Your task to perform on an android device: Go to Wikipedia Image 0: 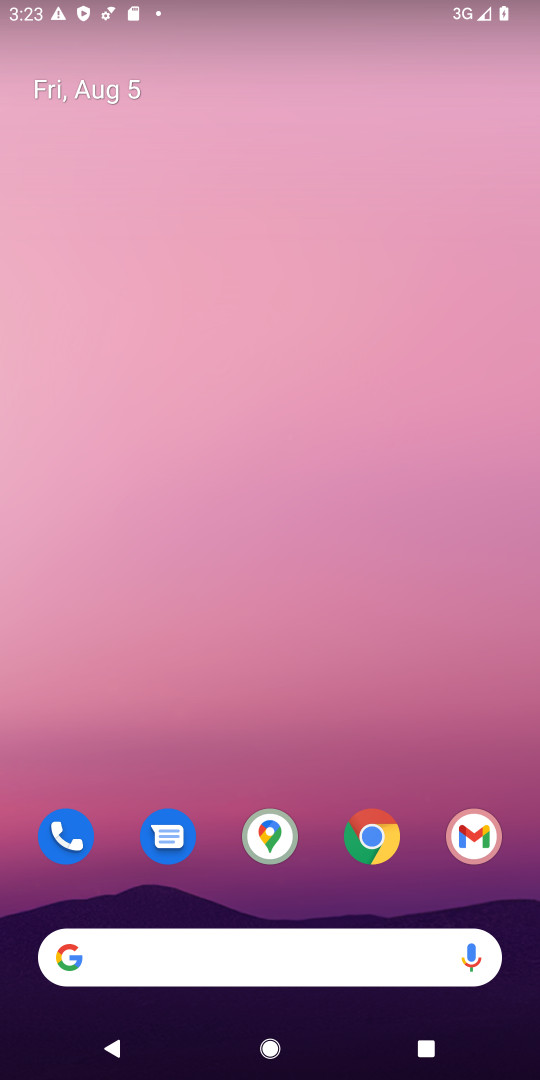
Step 0: drag from (264, 940) to (376, 0)
Your task to perform on an android device: Go to Wikipedia Image 1: 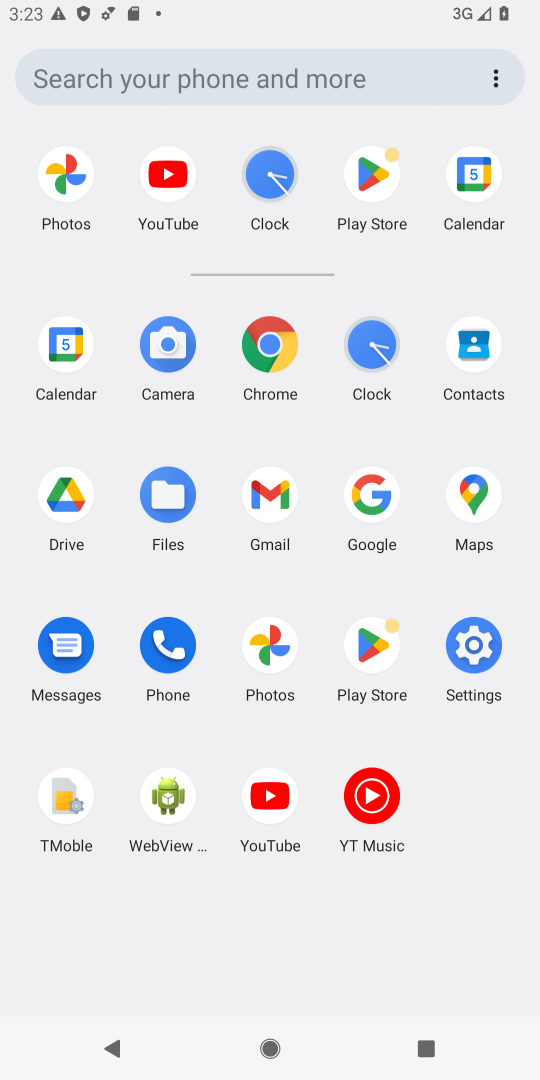
Step 1: click (246, 369)
Your task to perform on an android device: Go to Wikipedia Image 2: 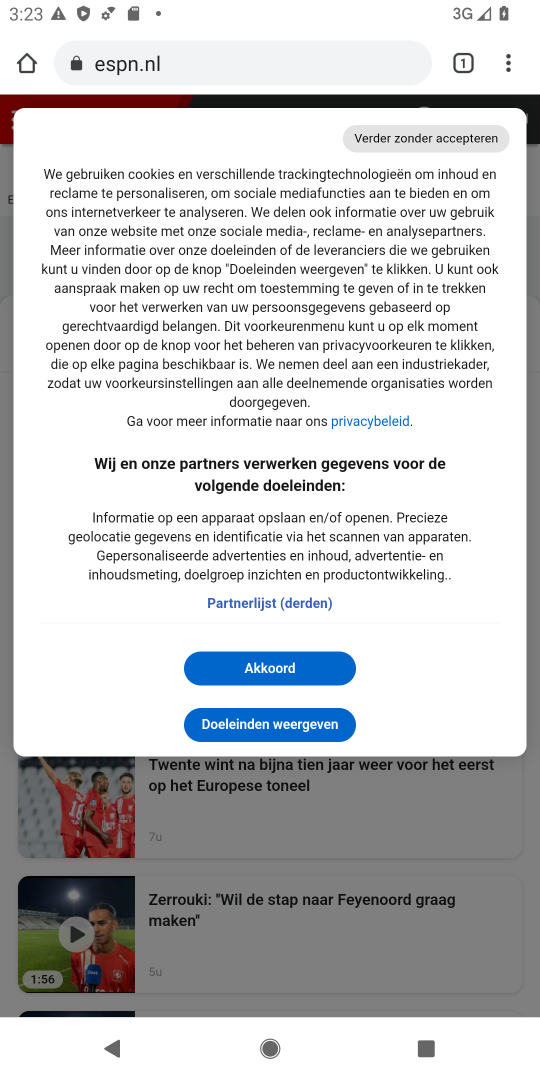
Step 2: click (224, 61)
Your task to perform on an android device: Go to Wikipedia Image 3: 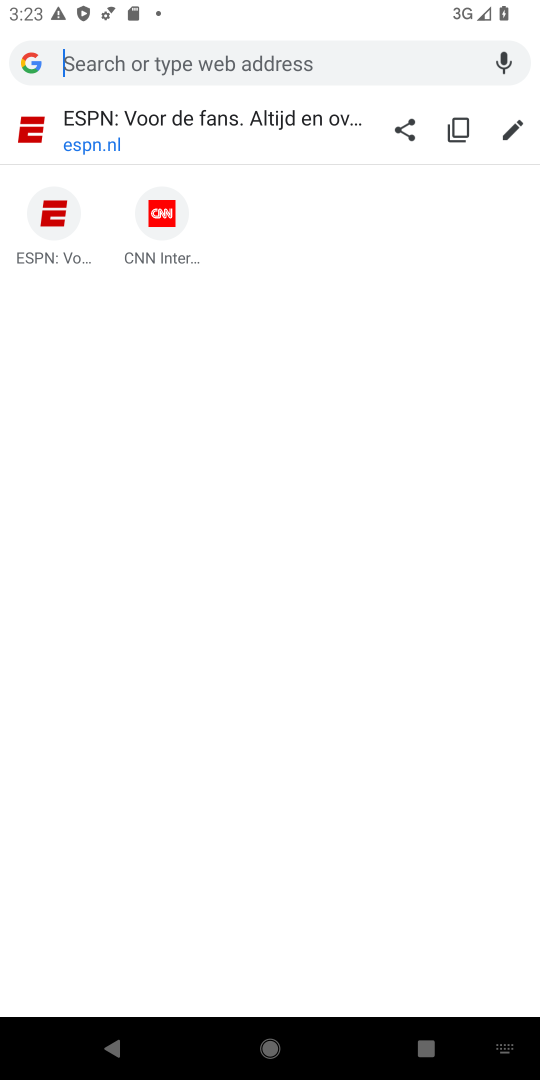
Step 3: type "Wikipedia"
Your task to perform on an android device: Go to Wikipedia Image 4: 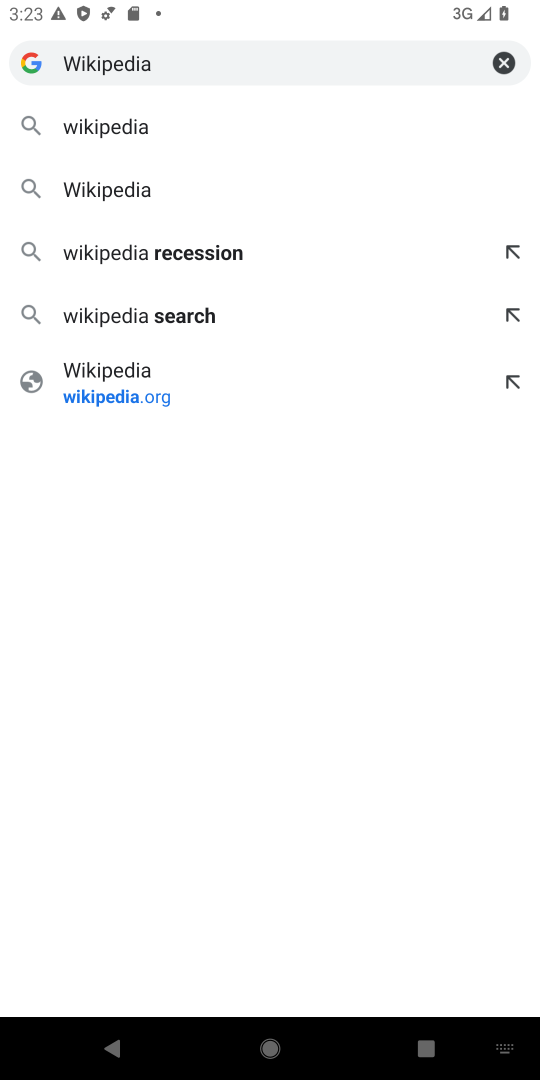
Step 4: click (119, 107)
Your task to perform on an android device: Go to Wikipedia Image 5: 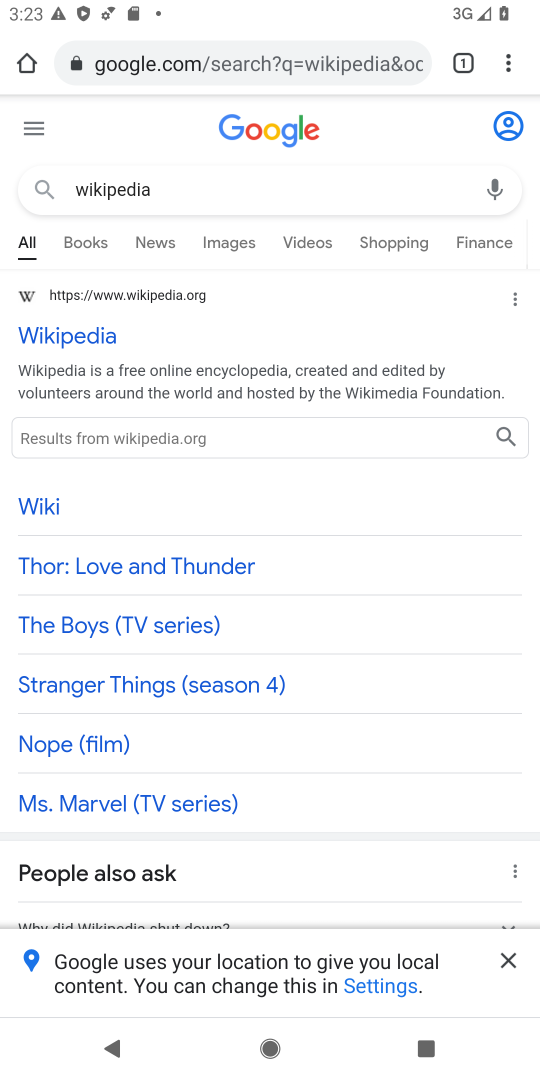
Step 5: click (81, 345)
Your task to perform on an android device: Go to Wikipedia Image 6: 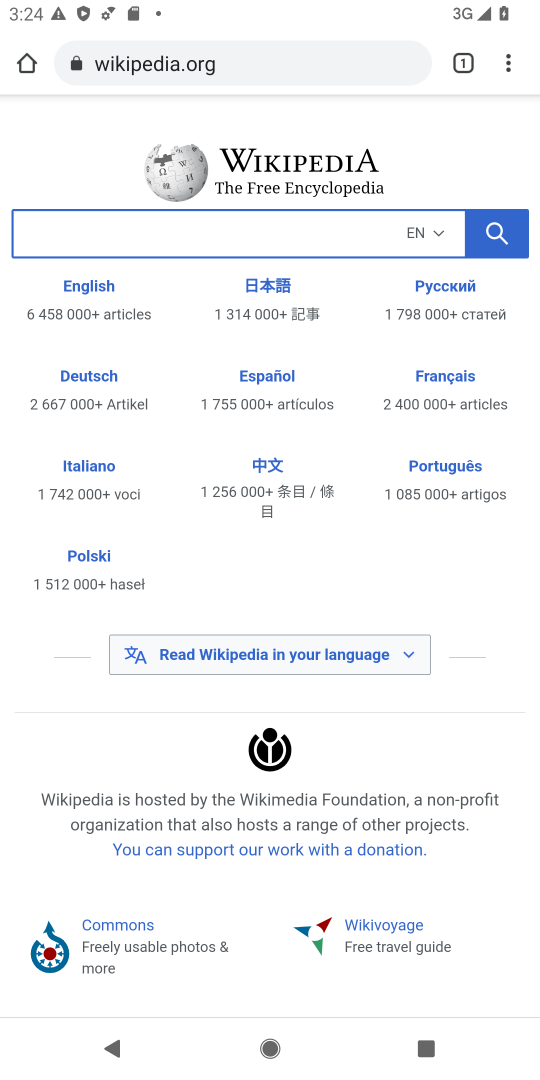
Step 6: task complete